Your task to perform on an android device: change notification settings in the gmail app Image 0: 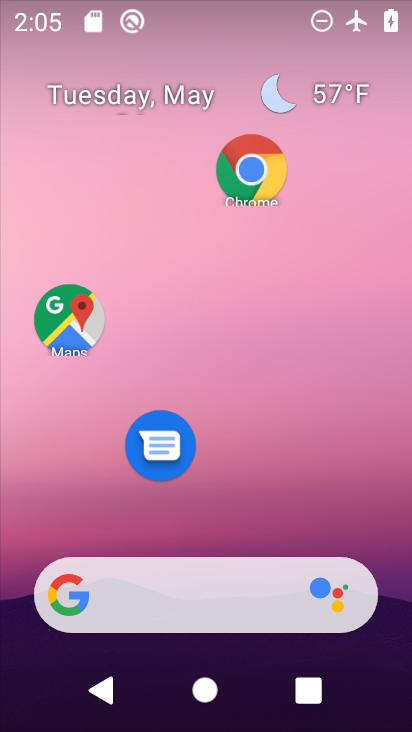
Step 0: drag from (210, 722) to (205, 144)
Your task to perform on an android device: change notification settings in the gmail app Image 1: 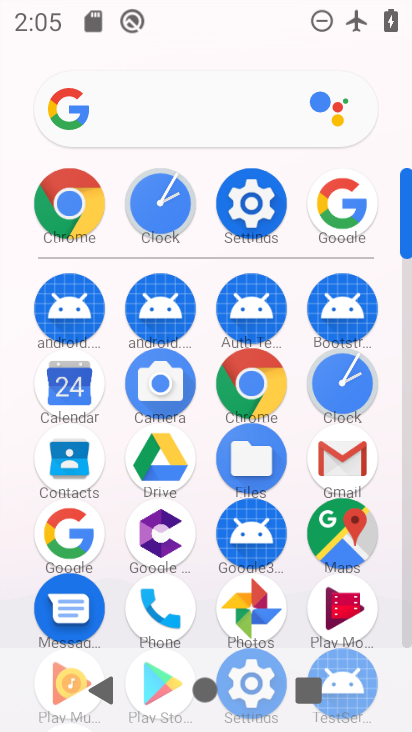
Step 1: click (344, 445)
Your task to perform on an android device: change notification settings in the gmail app Image 2: 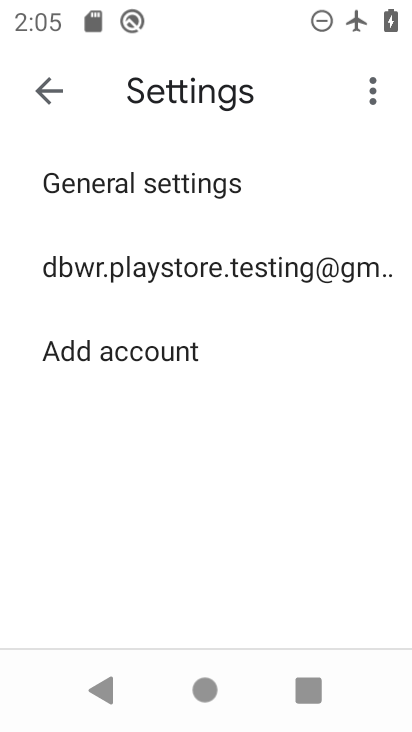
Step 2: click (215, 264)
Your task to perform on an android device: change notification settings in the gmail app Image 3: 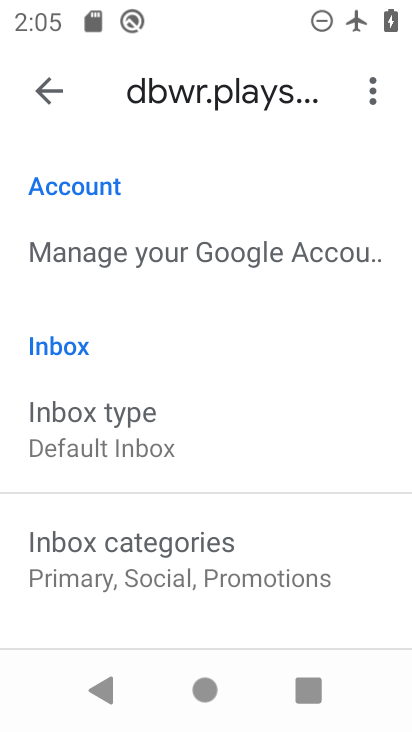
Step 3: drag from (136, 596) to (150, 230)
Your task to perform on an android device: change notification settings in the gmail app Image 4: 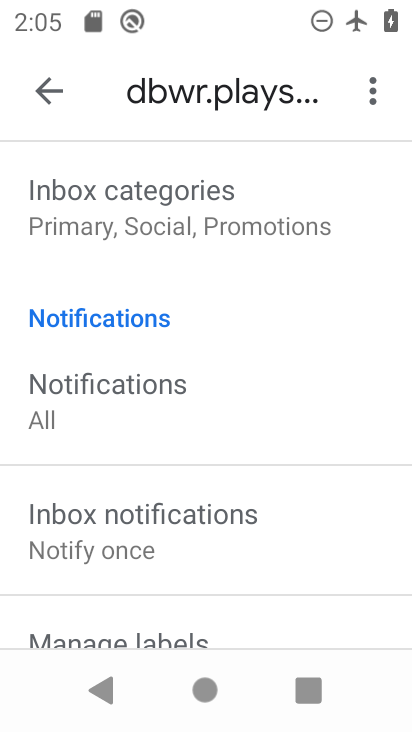
Step 4: click (112, 549)
Your task to perform on an android device: change notification settings in the gmail app Image 5: 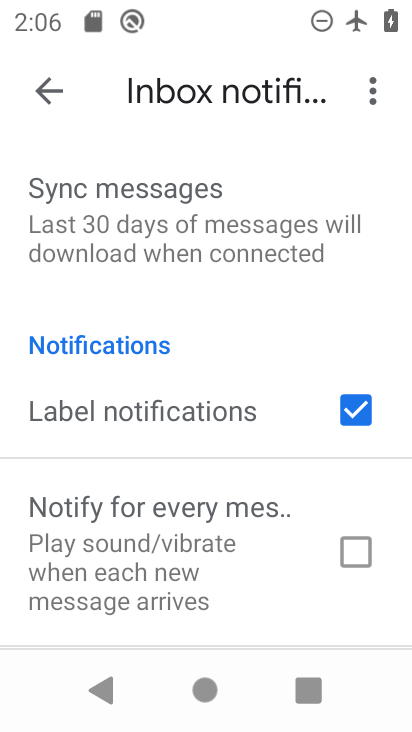
Step 5: drag from (193, 604) to (201, 426)
Your task to perform on an android device: change notification settings in the gmail app Image 6: 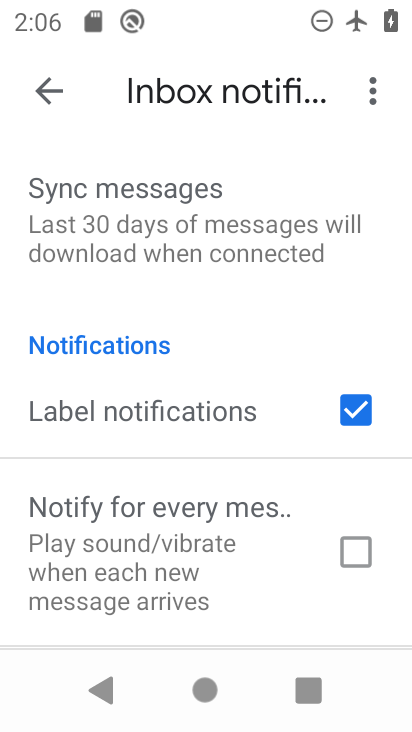
Step 6: click (347, 554)
Your task to perform on an android device: change notification settings in the gmail app Image 7: 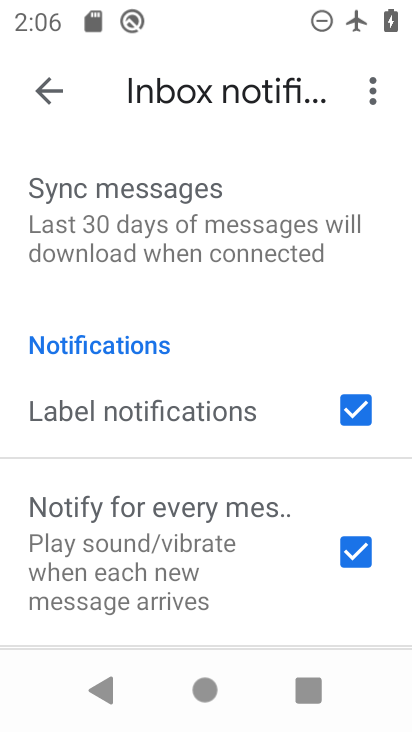
Step 7: task complete